Your task to perform on an android device: change alarm snooze length Image 0: 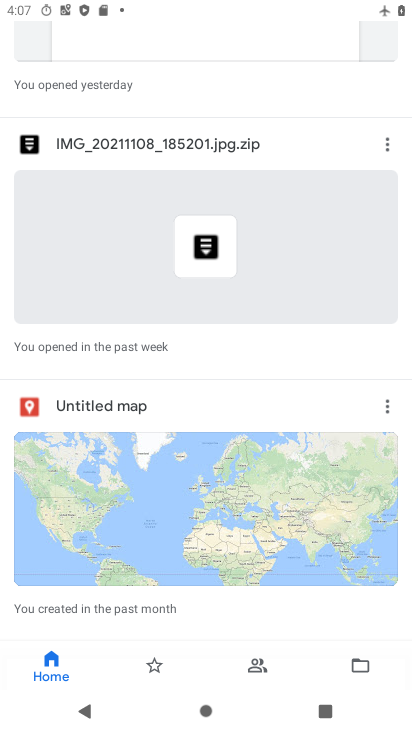
Step 0: press home button
Your task to perform on an android device: change alarm snooze length Image 1: 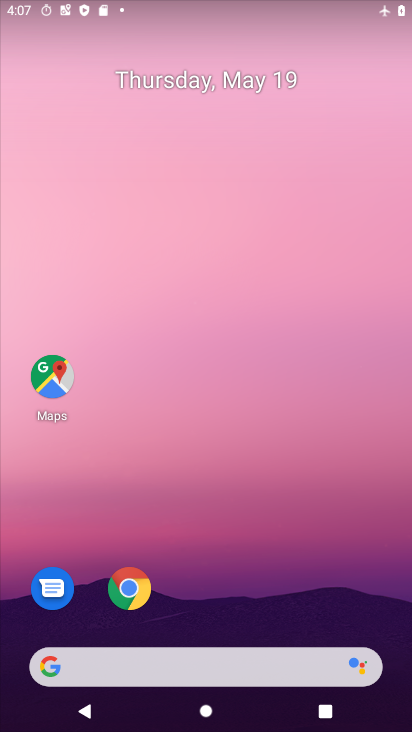
Step 1: drag from (226, 554) to (276, 206)
Your task to perform on an android device: change alarm snooze length Image 2: 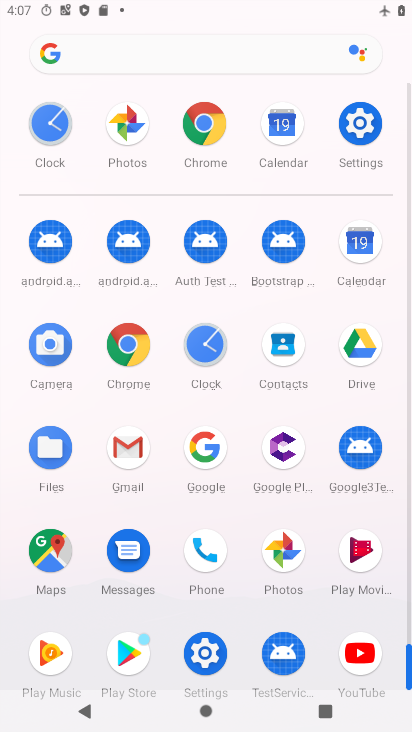
Step 2: click (202, 357)
Your task to perform on an android device: change alarm snooze length Image 3: 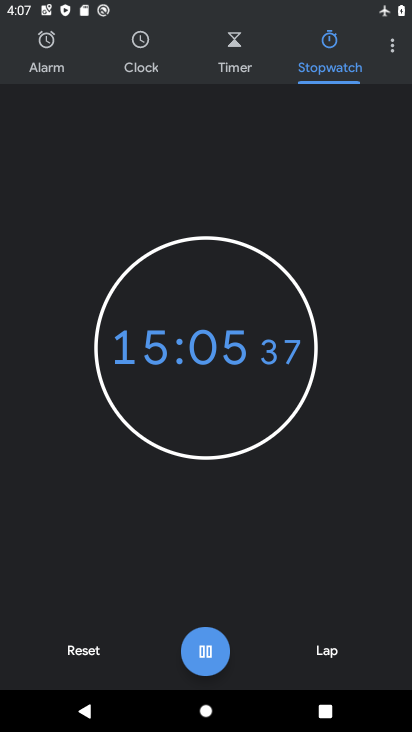
Step 3: click (395, 60)
Your task to perform on an android device: change alarm snooze length Image 4: 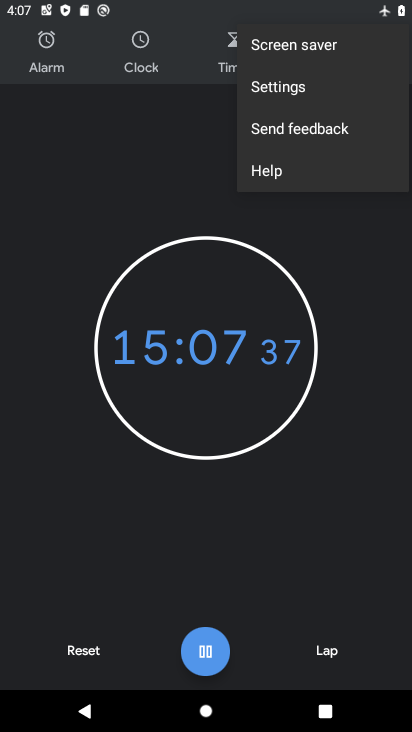
Step 4: click (286, 83)
Your task to perform on an android device: change alarm snooze length Image 5: 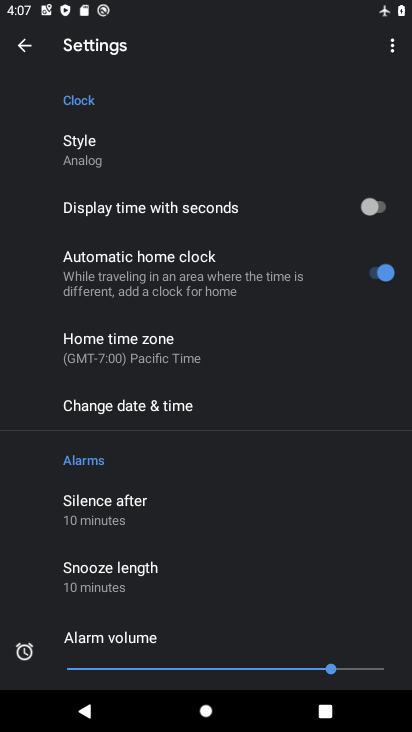
Step 5: click (110, 588)
Your task to perform on an android device: change alarm snooze length Image 6: 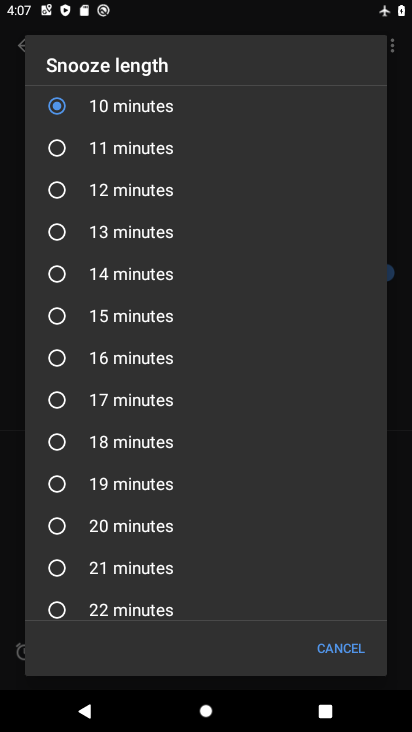
Step 6: click (60, 523)
Your task to perform on an android device: change alarm snooze length Image 7: 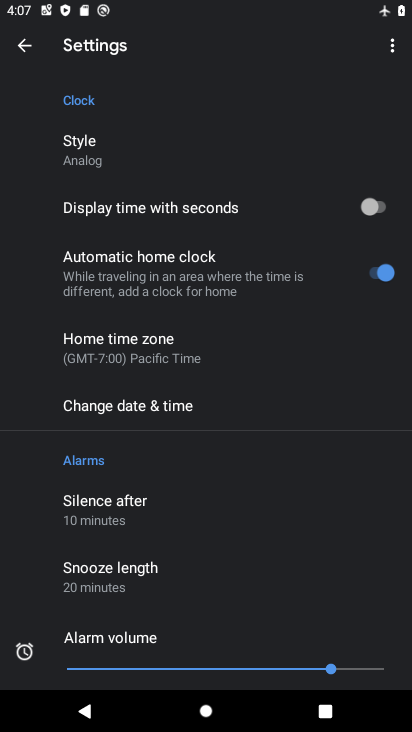
Step 7: task complete